Your task to perform on an android device: turn on javascript in the chrome app Image 0: 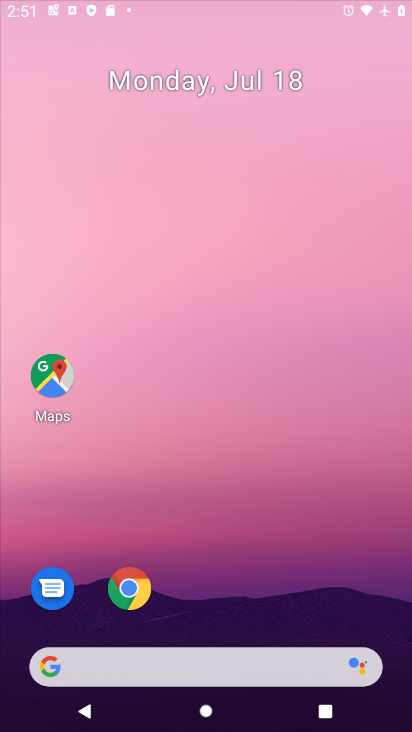
Step 0: drag from (201, 583) to (273, 154)
Your task to perform on an android device: turn on javascript in the chrome app Image 1: 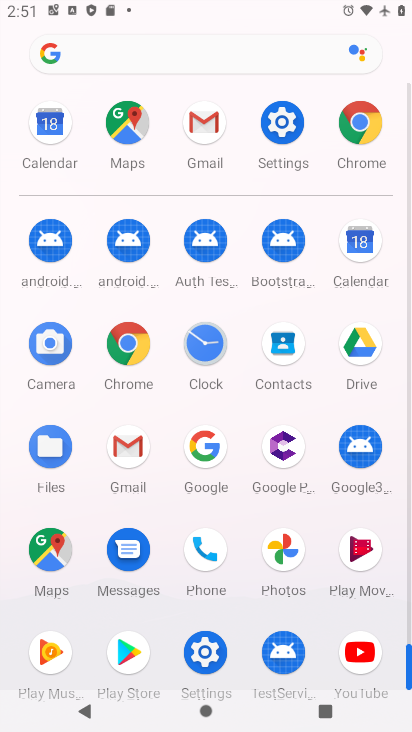
Step 1: click (373, 135)
Your task to perform on an android device: turn on javascript in the chrome app Image 2: 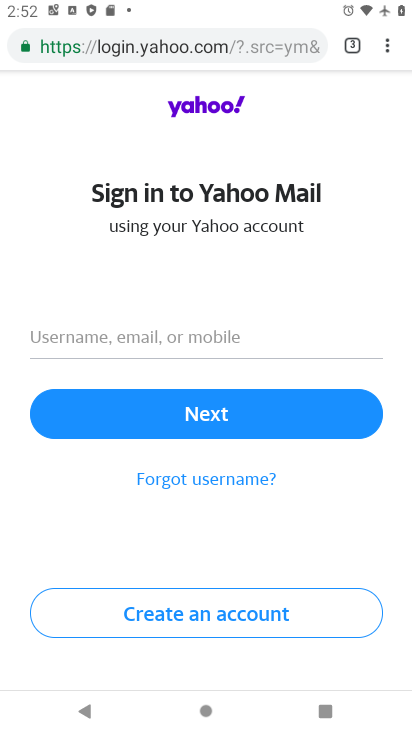
Step 2: click (389, 47)
Your task to perform on an android device: turn on javascript in the chrome app Image 3: 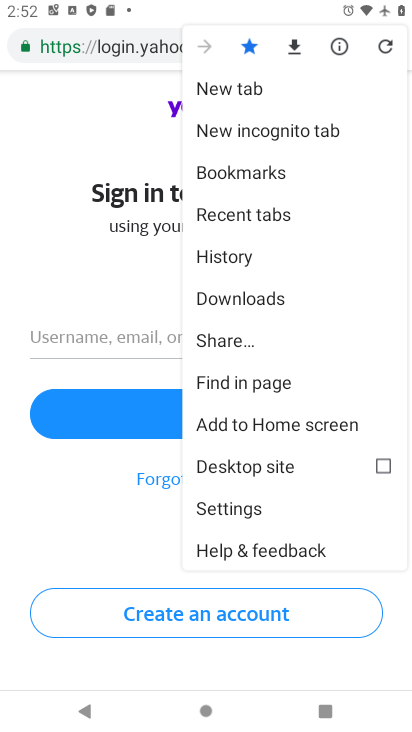
Step 3: click (251, 511)
Your task to perform on an android device: turn on javascript in the chrome app Image 4: 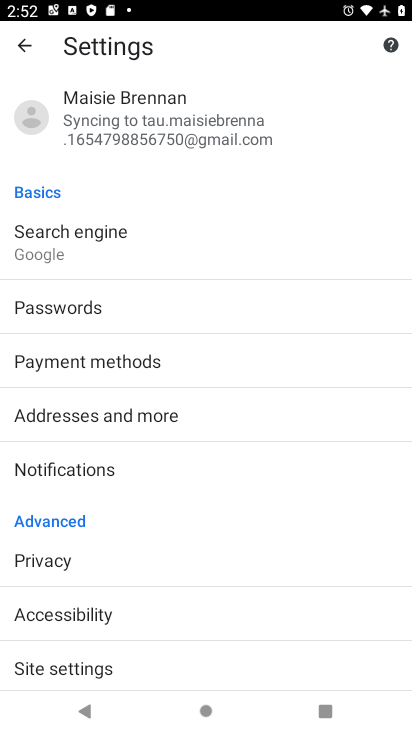
Step 4: drag from (158, 606) to (205, 300)
Your task to perform on an android device: turn on javascript in the chrome app Image 5: 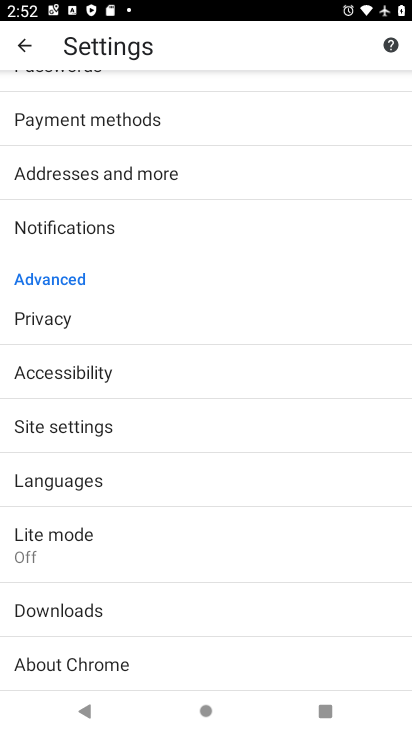
Step 5: click (55, 433)
Your task to perform on an android device: turn on javascript in the chrome app Image 6: 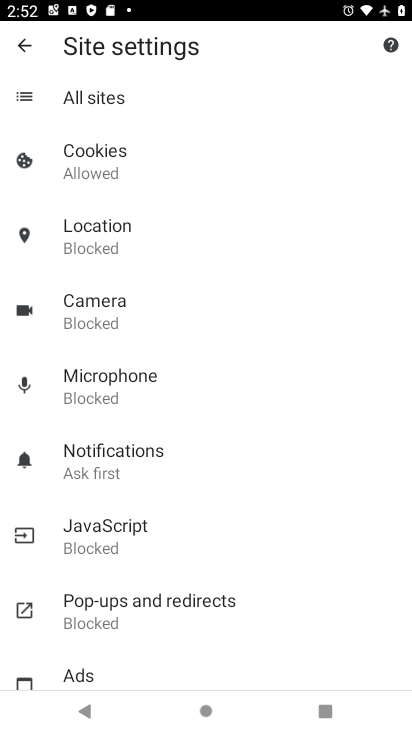
Step 6: click (156, 531)
Your task to perform on an android device: turn on javascript in the chrome app Image 7: 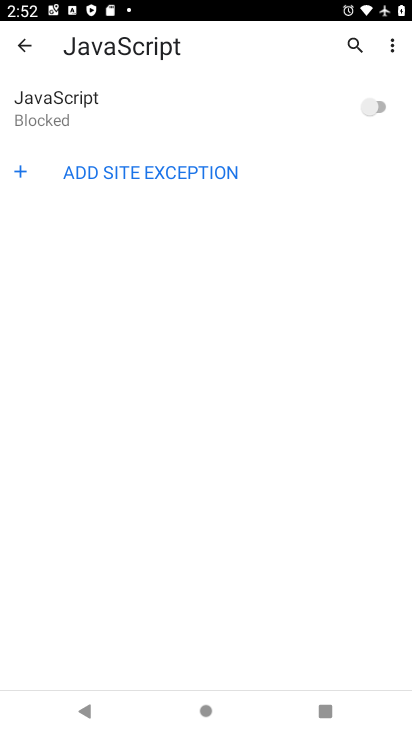
Step 7: click (383, 102)
Your task to perform on an android device: turn on javascript in the chrome app Image 8: 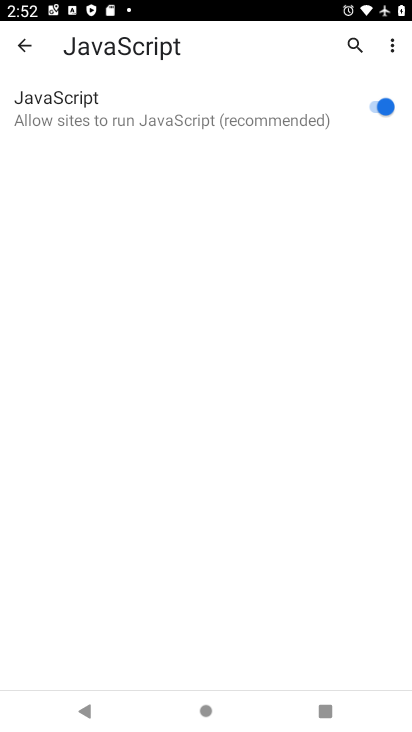
Step 8: task complete